Your task to perform on an android device: Search for Mexican restaurants on Maps Image 0: 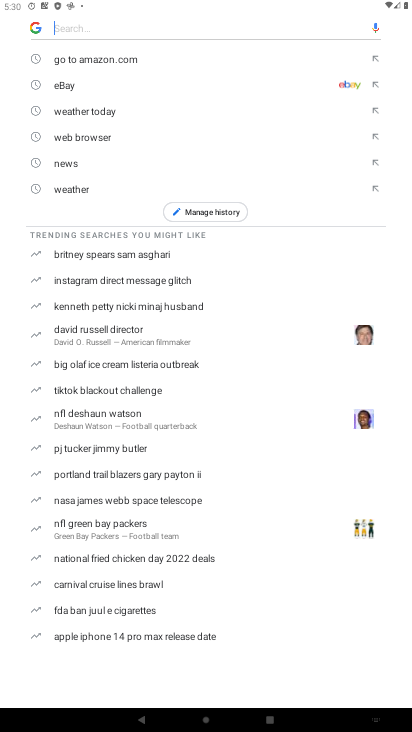
Step 0: press home button
Your task to perform on an android device: Search for Mexican restaurants on Maps Image 1: 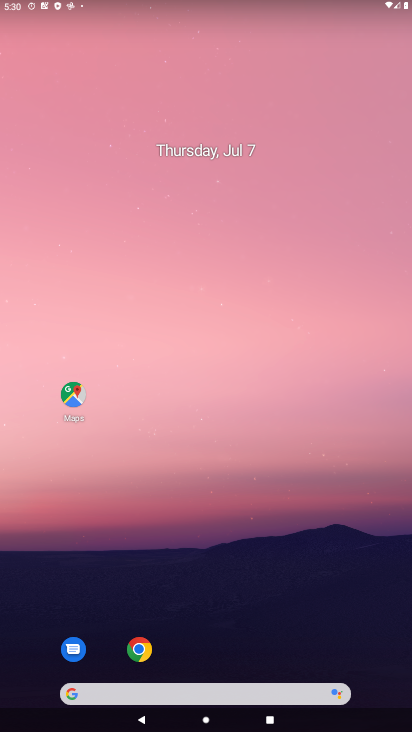
Step 1: drag from (402, 668) to (229, 0)
Your task to perform on an android device: Search for Mexican restaurants on Maps Image 2: 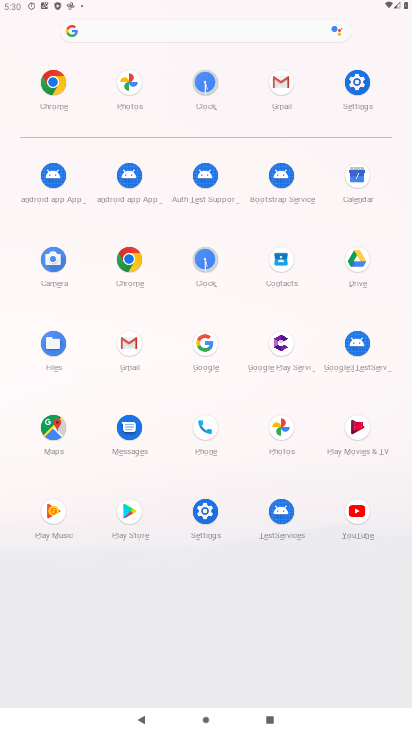
Step 2: click (51, 426)
Your task to perform on an android device: Search for Mexican restaurants on Maps Image 3: 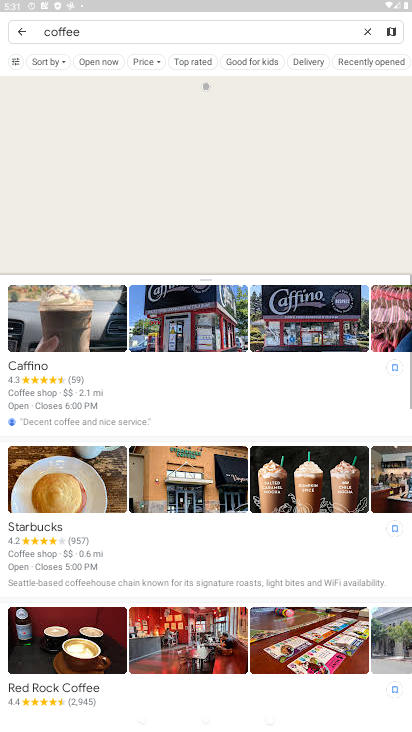
Step 3: click (367, 34)
Your task to perform on an android device: Search for Mexican restaurants on Maps Image 4: 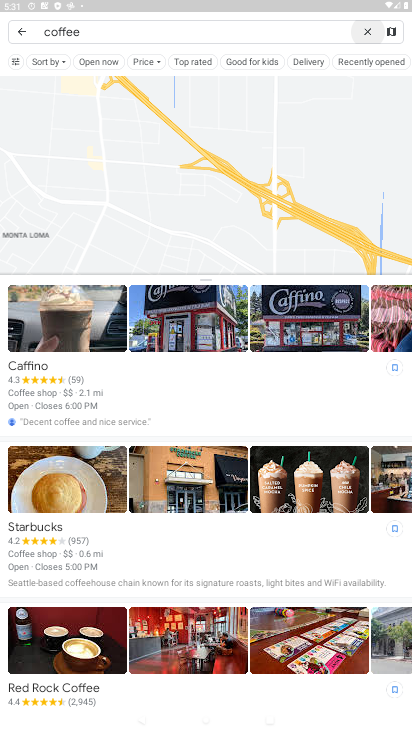
Step 4: click (100, 27)
Your task to perform on an android device: Search for Mexican restaurants on Maps Image 5: 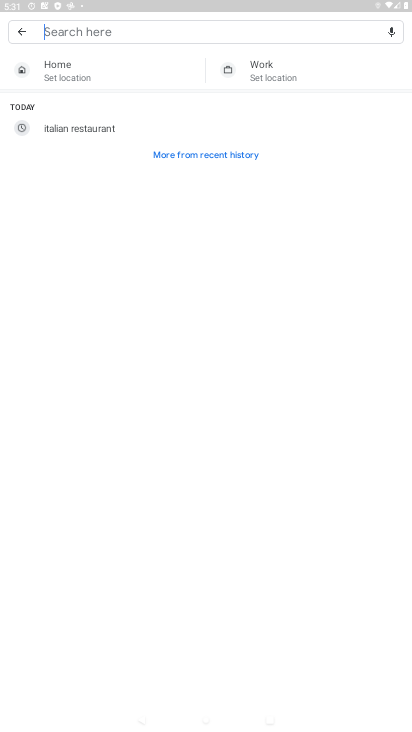
Step 5: click (96, 30)
Your task to perform on an android device: Search for Mexican restaurants on Maps Image 6: 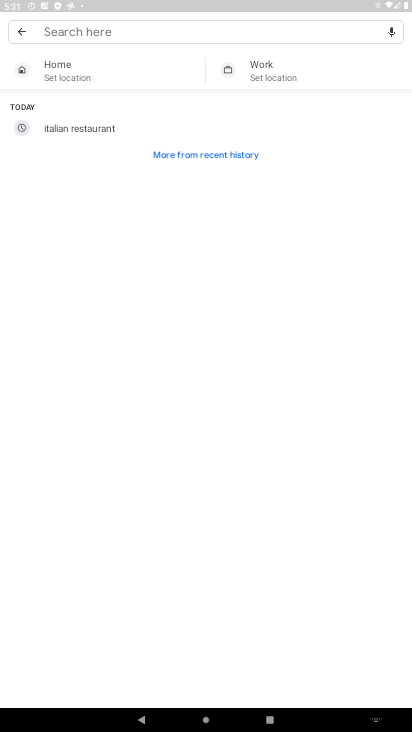
Step 6: type "mexican restaurnats"
Your task to perform on an android device: Search for Mexican restaurants on Maps Image 7: 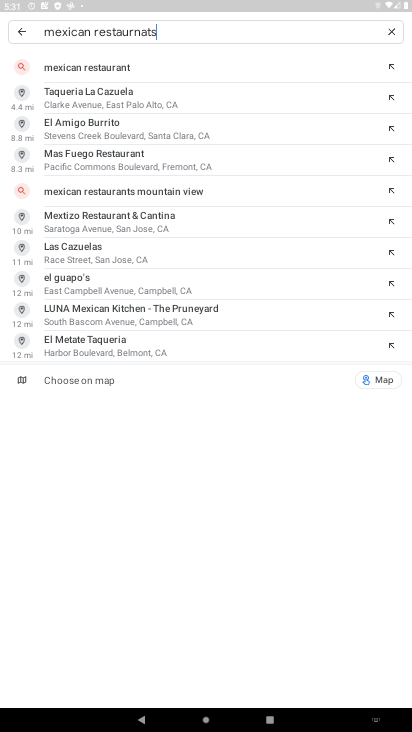
Step 7: click (116, 73)
Your task to perform on an android device: Search for Mexican restaurants on Maps Image 8: 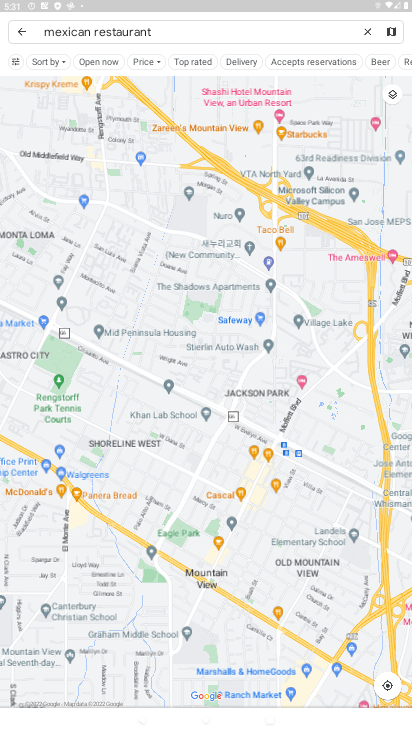
Step 8: task complete